Your task to perform on an android device: What's the latest news in cosmology? Image 0: 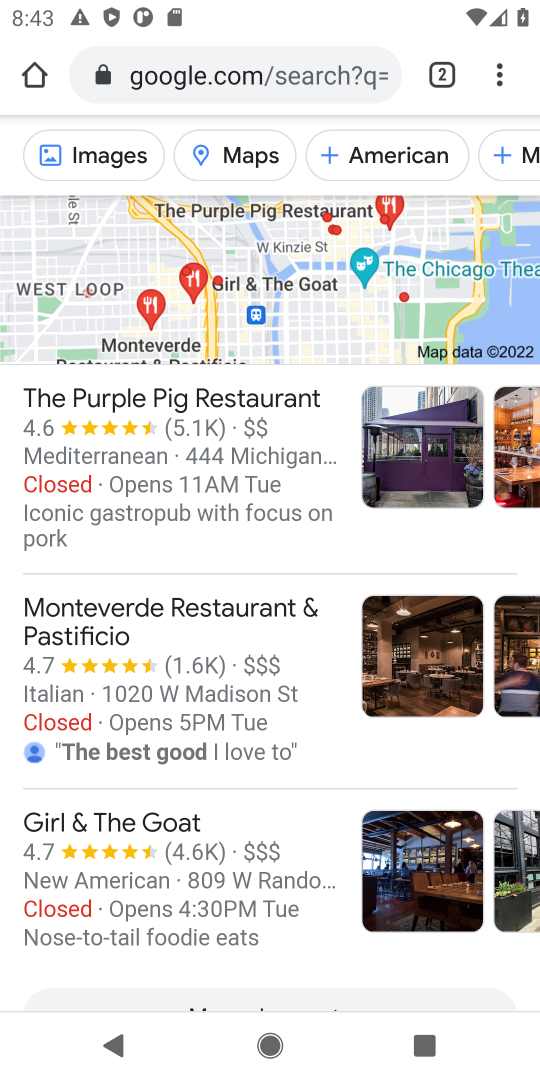
Step 0: press home button
Your task to perform on an android device: What's the latest news in cosmology? Image 1: 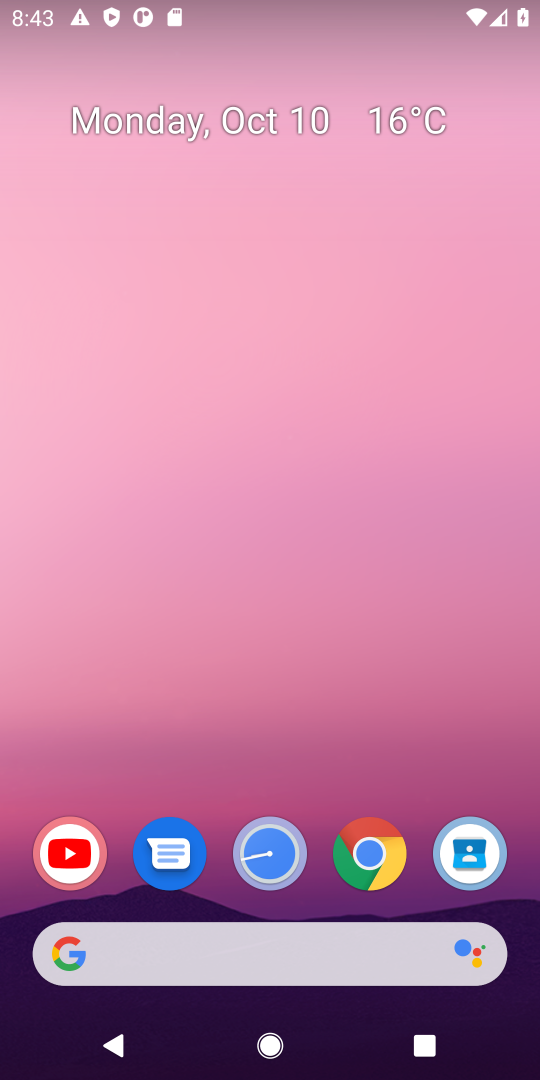
Step 1: drag from (336, 913) to (317, 15)
Your task to perform on an android device: What's the latest news in cosmology? Image 2: 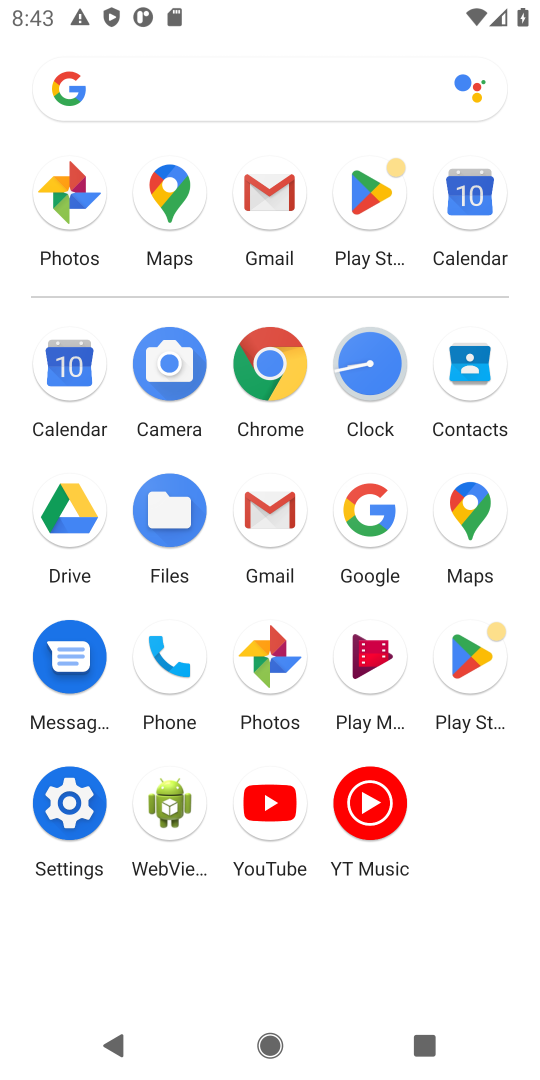
Step 2: click (261, 361)
Your task to perform on an android device: What's the latest news in cosmology? Image 3: 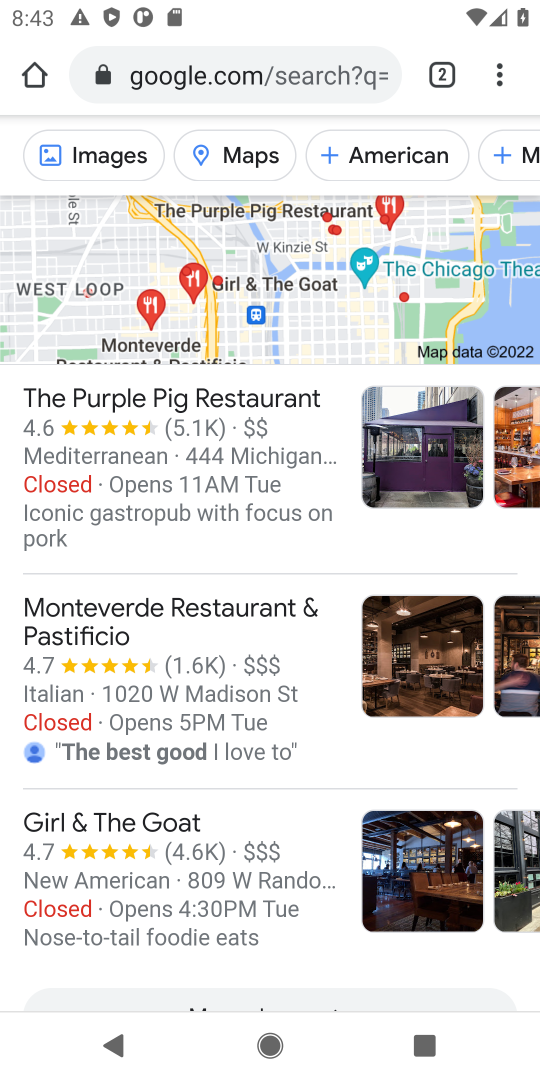
Step 3: drag from (240, 283) to (201, 707)
Your task to perform on an android device: What's the latest news in cosmology? Image 4: 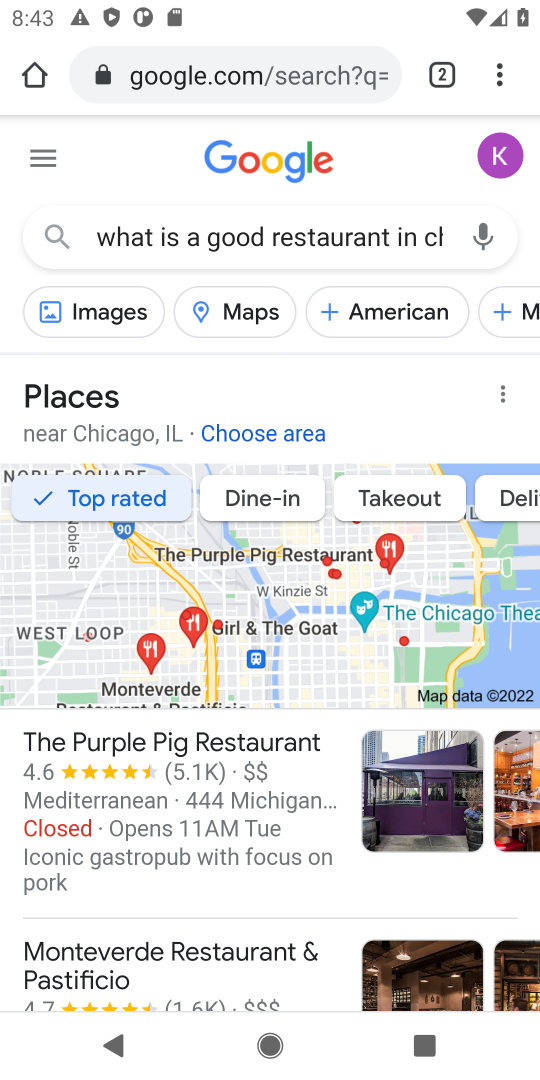
Step 4: click (280, 246)
Your task to perform on an android device: What's the latest news in cosmology? Image 5: 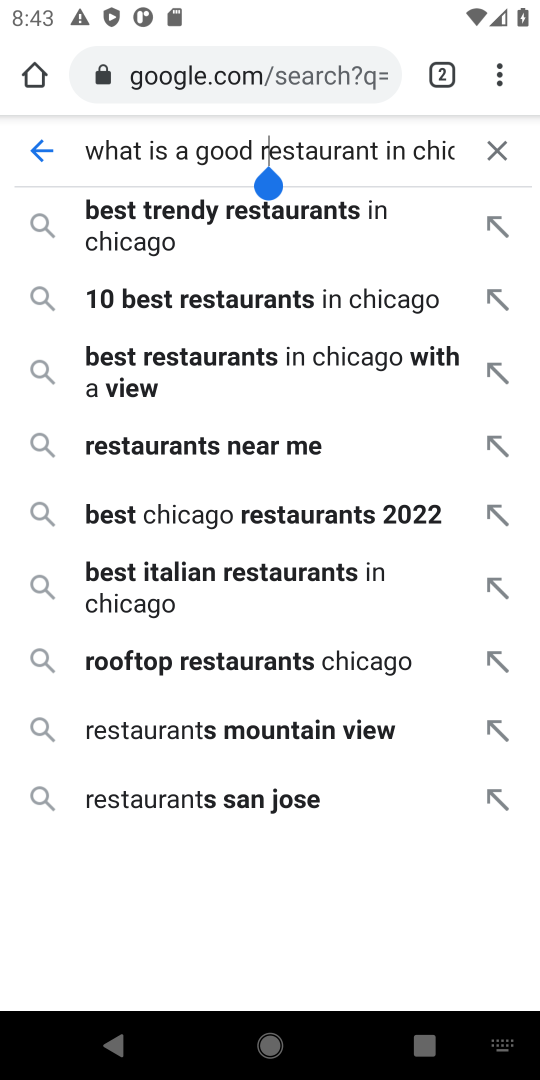
Step 5: click (500, 147)
Your task to perform on an android device: What's the latest news in cosmology? Image 6: 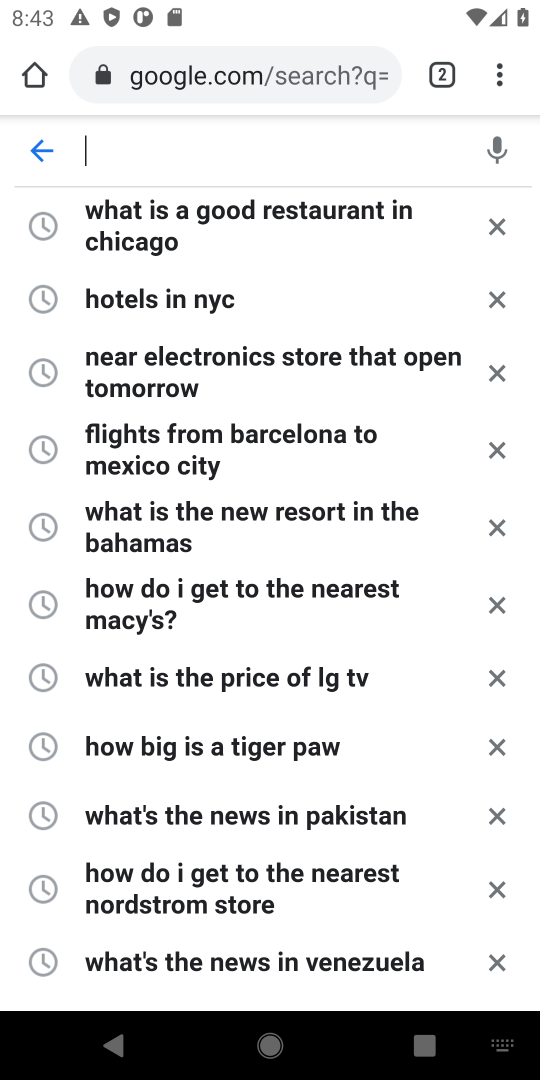
Step 6: type "What's the latest news in cosmology?"
Your task to perform on an android device: What's the latest news in cosmology? Image 7: 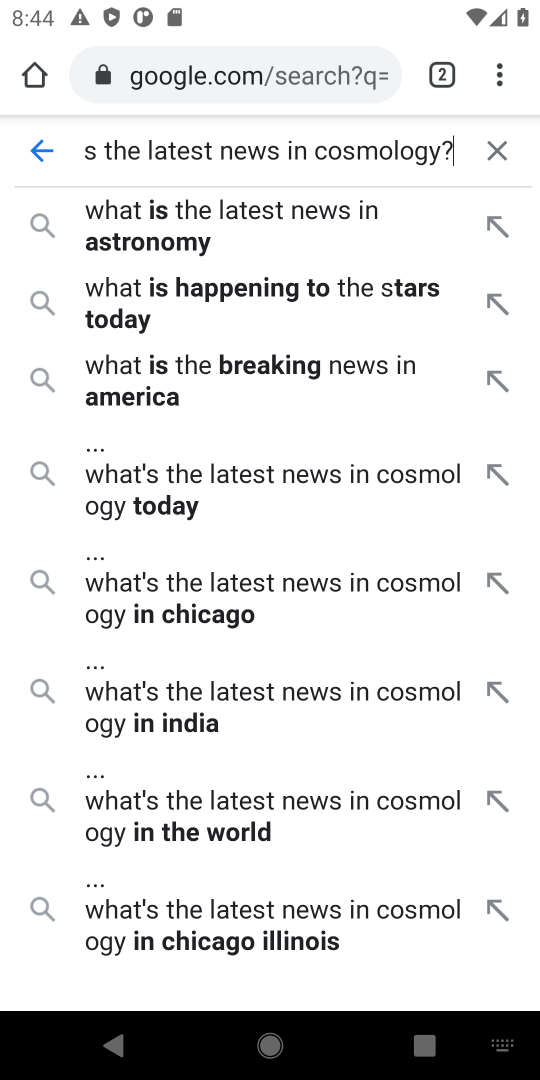
Step 7: drag from (248, 941) to (208, 454)
Your task to perform on an android device: What's the latest news in cosmology? Image 8: 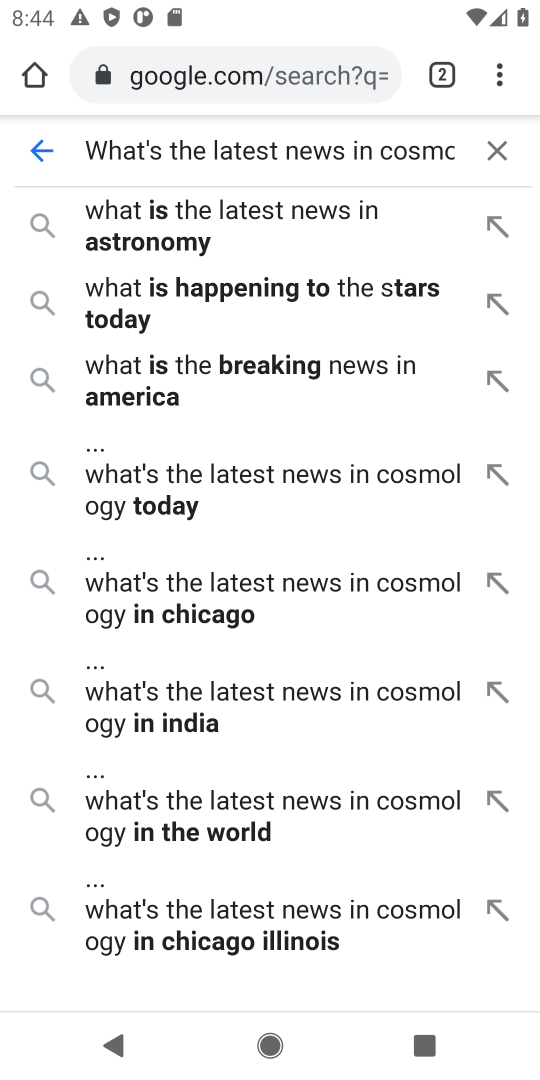
Step 8: drag from (164, 901) to (132, 374)
Your task to perform on an android device: What's the latest news in cosmology? Image 9: 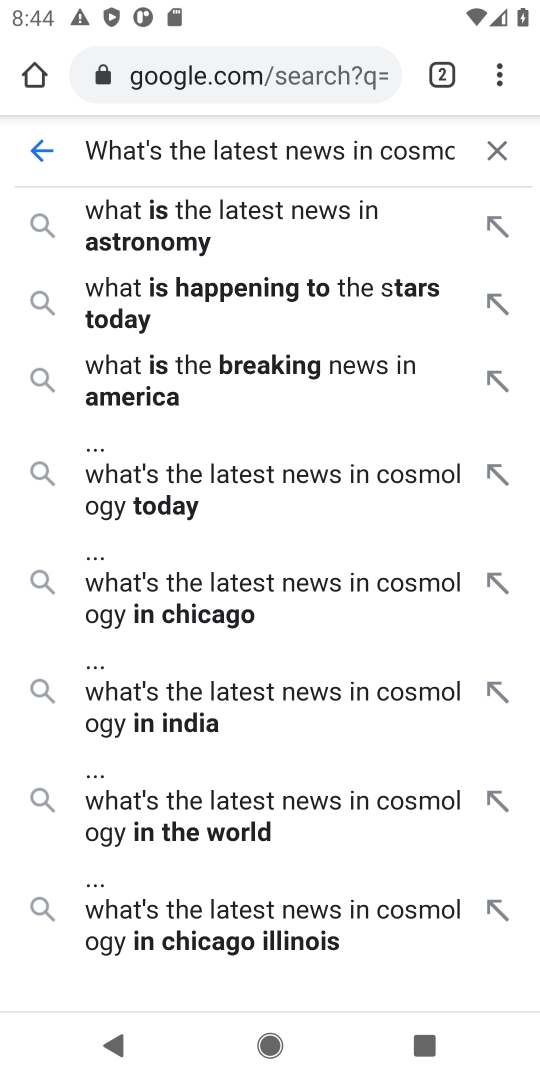
Step 9: click (215, 485)
Your task to perform on an android device: What's the latest news in cosmology? Image 10: 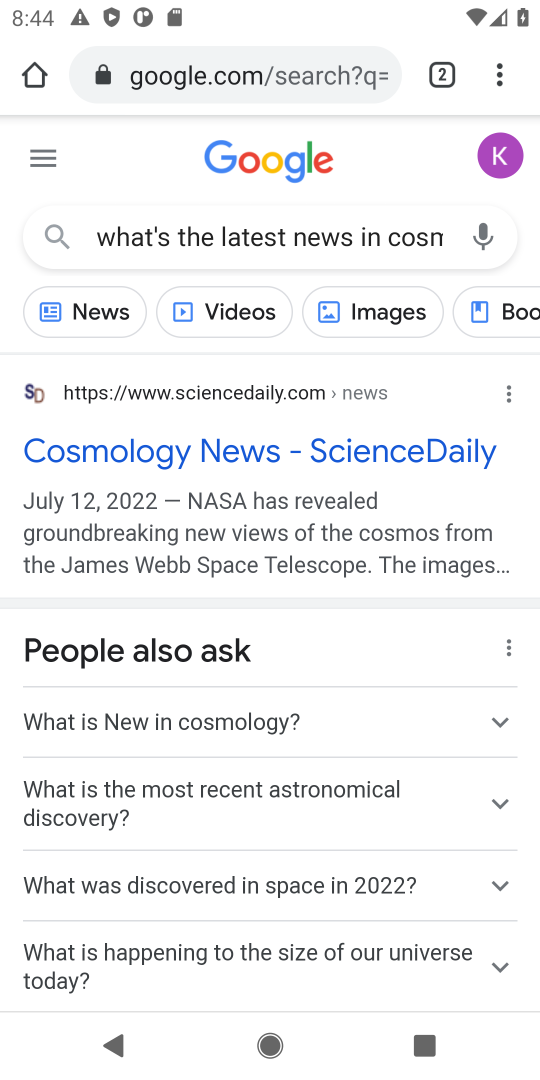
Step 10: task complete